Your task to perform on an android device: Search for Italian restaurants on Maps Image 0: 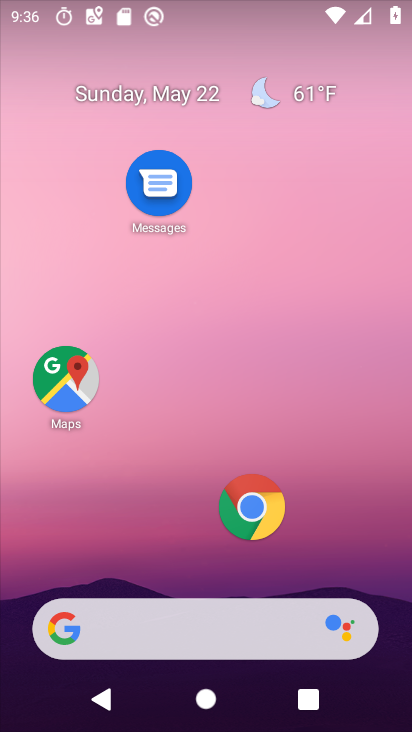
Step 0: click (54, 378)
Your task to perform on an android device: Search for Italian restaurants on Maps Image 1: 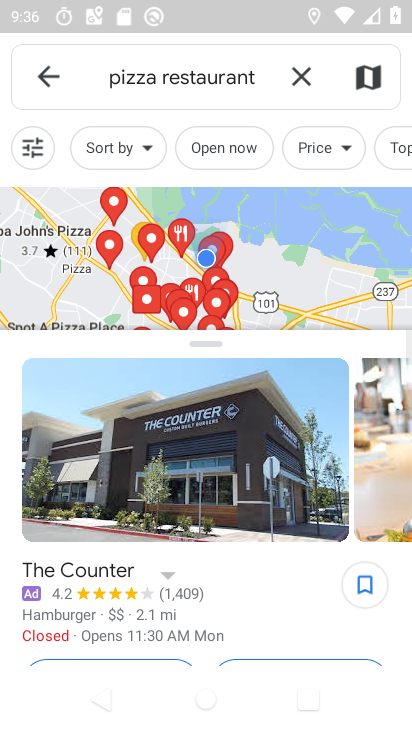
Step 1: click (306, 79)
Your task to perform on an android device: Search for Italian restaurants on Maps Image 2: 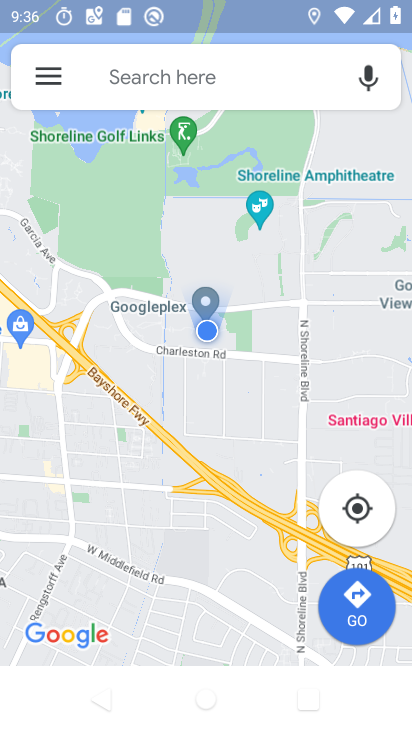
Step 2: click (306, 79)
Your task to perform on an android device: Search for Italian restaurants on Maps Image 3: 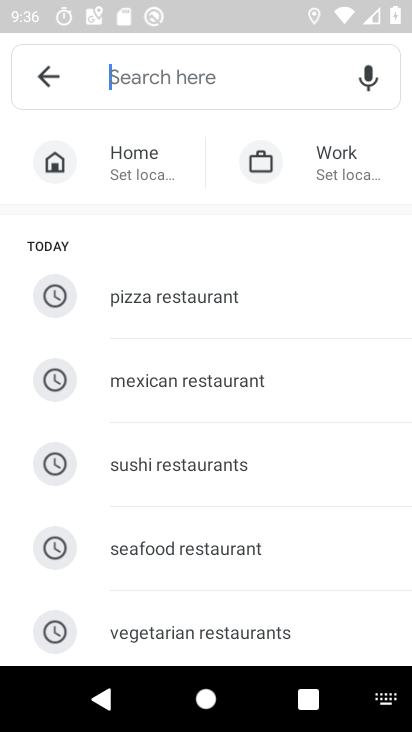
Step 3: drag from (178, 596) to (258, 103)
Your task to perform on an android device: Search for Italian restaurants on Maps Image 4: 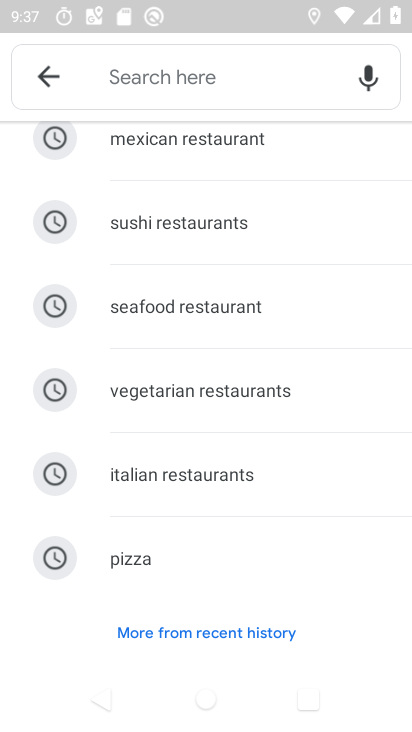
Step 4: type "italian restaurant"
Your task to perform on an android device: Search for Italian restaurants on Maps Image 5: 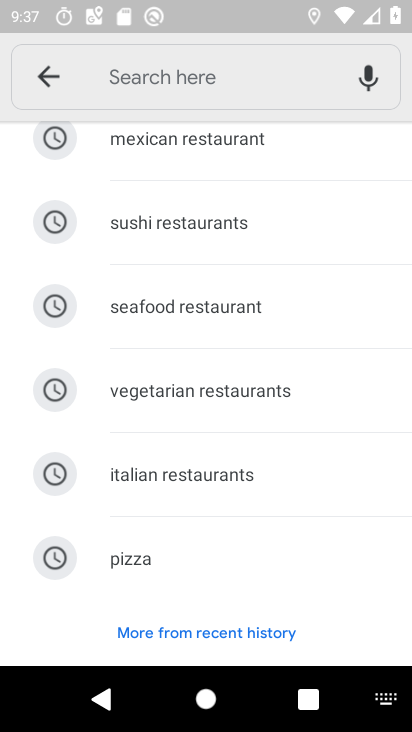
Step 5: click (172, 485)
Your task to perform on an android device: Search for Italian restaurants on Maps Image 6: 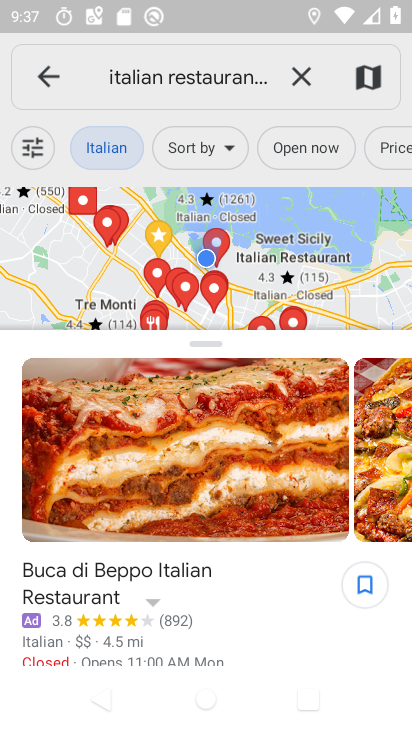
Step 6: task complete